Your task to perform on an android device: Open Youtube and go to the subscriptions tab Image 0: 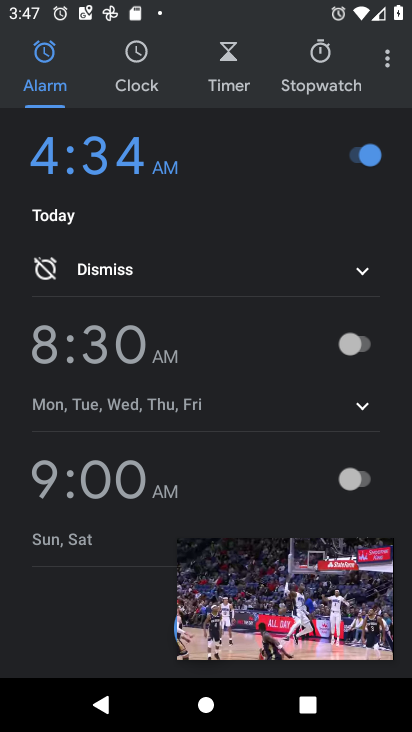
Step 0: press home button
Your task to perform on an android device: Open Youtube and go to the subscriptions tab Image 1: 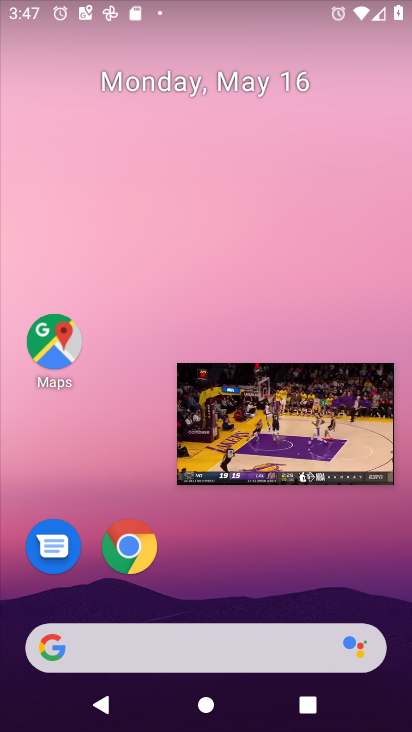
Step 1: drag from (296, 406) to (300, 141)
Your task to perform on an android device: Open Youtube and go to the subscriptions tab Image 2: 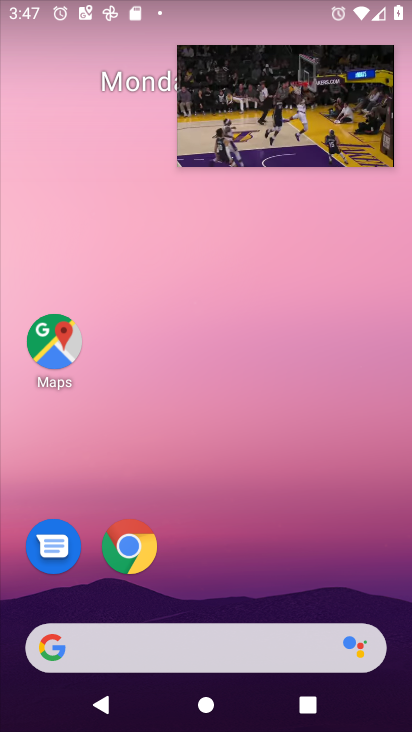
Step 2: drag from (247, 477) to (276, 5)
Your task to perform on an android device: Open Youtube and go to the subscriptions tab Image 3: 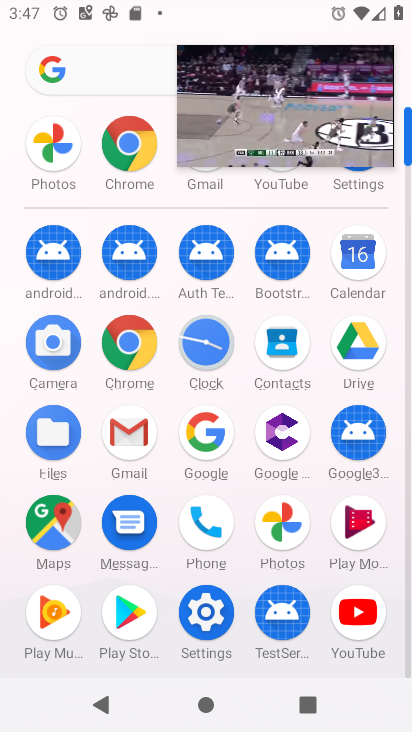
Step 3: click (371, 635)
Your task to perform on an android device: Open Youtube and go to the subscriptions tab Image 4: 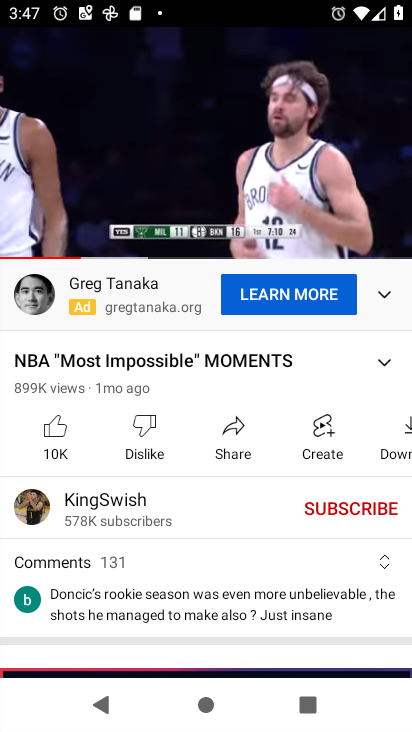
Step 4: drag from (241, 576) to (259, 421)
Your task to perform on an android device: Open Youtube and go to the subscriptions tab Image 5: 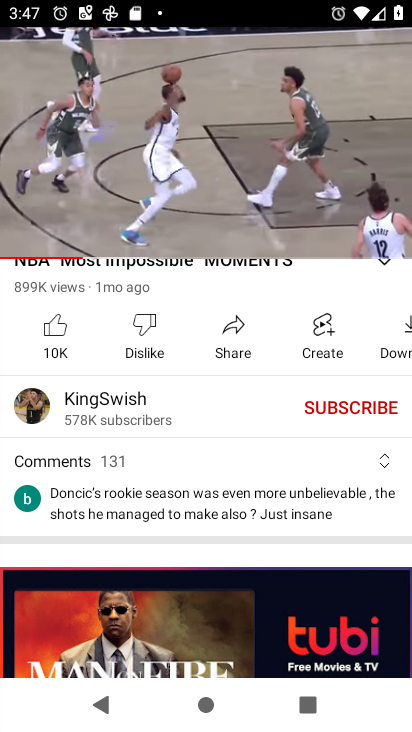
Step 5: press back button
Your task to perform on an android device: Open Youtube and go to the subscriptions tab Image 6: 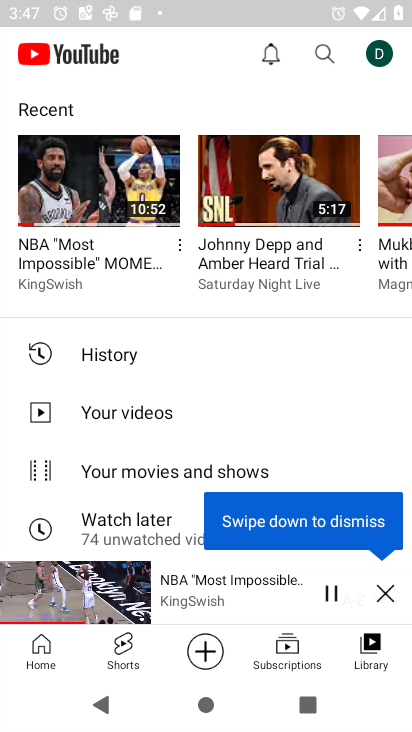
Step 6: click (393, 602)
Your task to perform on an android device: Open Youtube and go to the subscriptions tab Image 7: 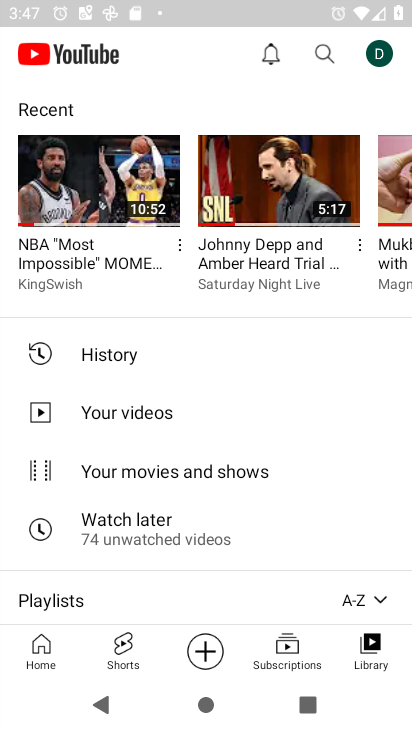
Step 7: click (297, 654)
Your task to perform on an android device: Open Youtube and go to the subscriptions tab Image 8: 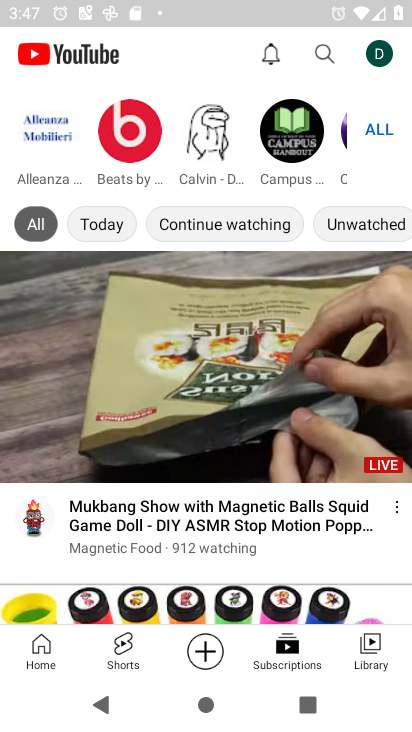
Step 8: task complete